Your task to perform on an android device: turn off improve location accuracy Image 0: 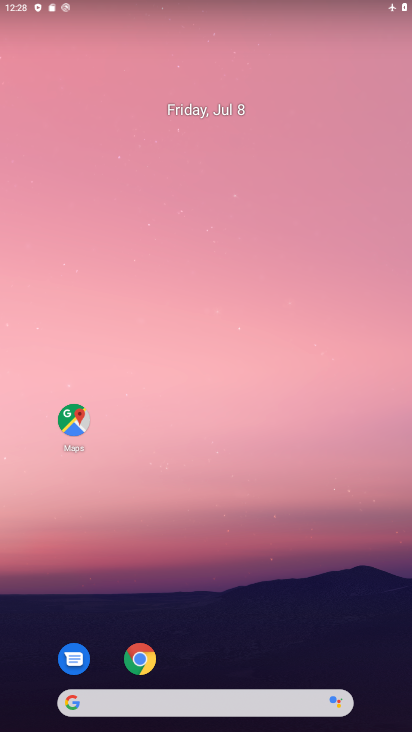
Step 0: drag from (310, 622) to (309, 40)
Your task to perform on an android device: turn off improve location accuracy Image 1: 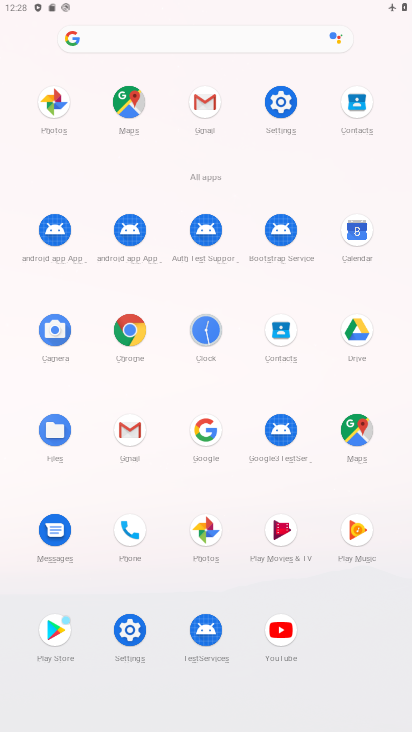
Step 1: click (127, 633)
Your task to perform on an android device: turn off improve location accuracy Image 2: 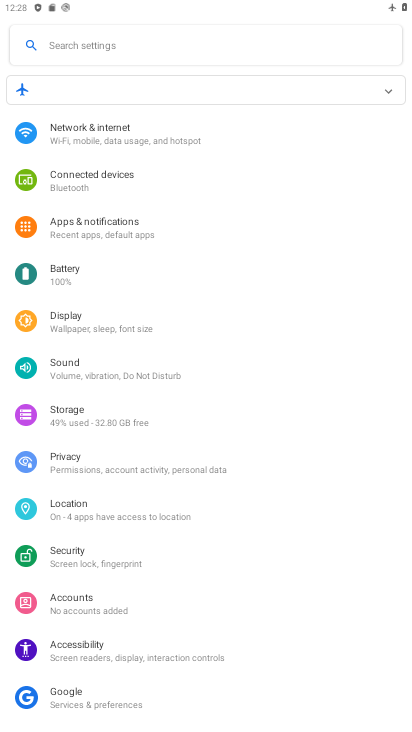
Step 2: click (82, 504)
Your task to perform on an android device: turn off improve location accuracy Image 3: 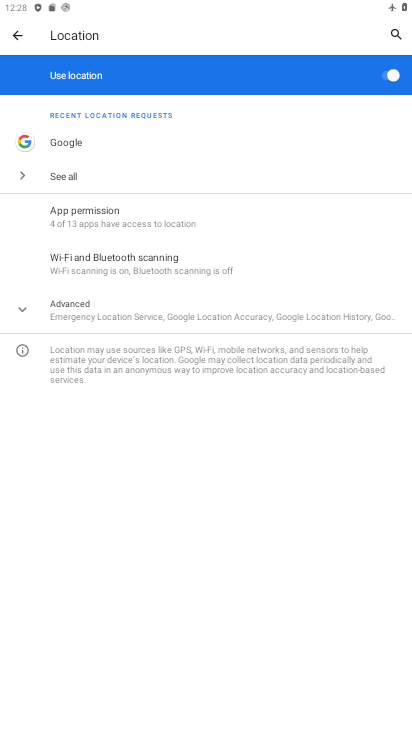
Step 3: click (22, 309)
Your task to perform on an android device: turn off improve location accuracy Image 4: 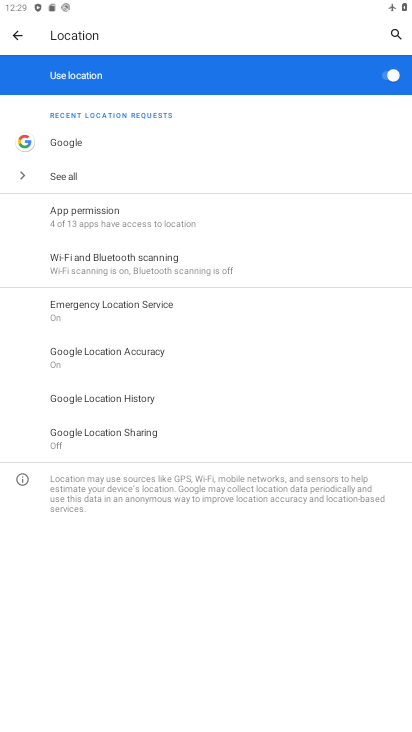
Step 4: click (92, 352)
Your task to perform on an android device: turn off improve location accuracy Image 5: 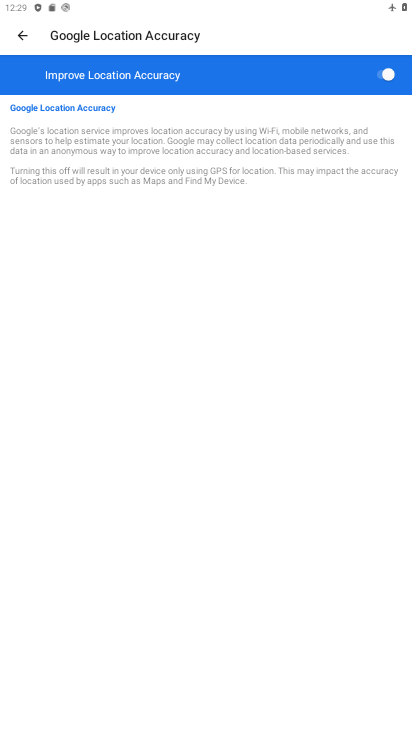
Step 5: click (378, 73)
Your task to perform on an android device: turn off improve location accuracy Image 6: 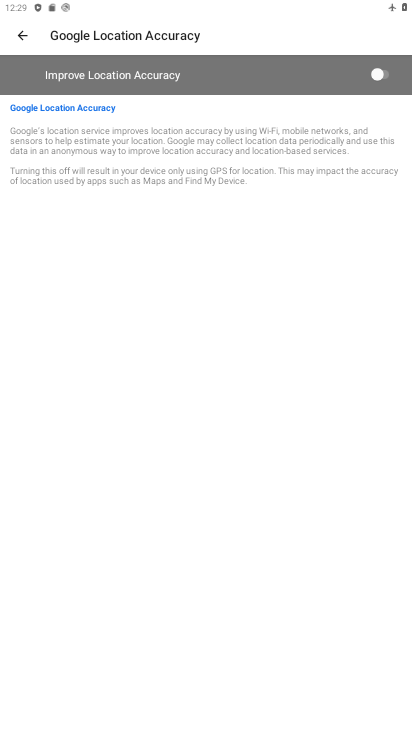
Step 6: task complete